Your task to perform on an android device: Go to Google maps Image 0: 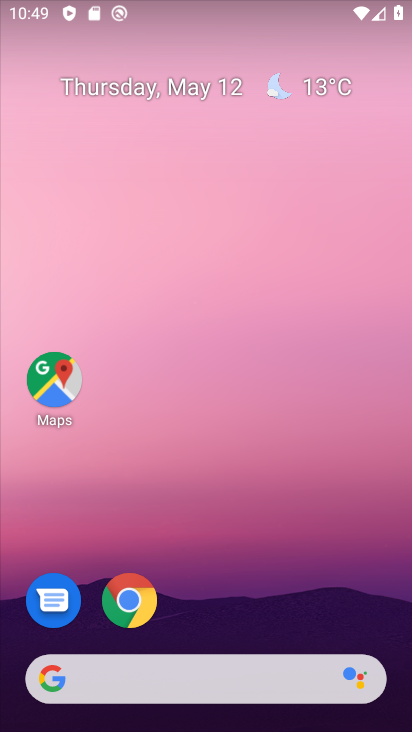
Step 0: click (53, 378)
Your task to perform on an android device: Go to Google maps Image 1: 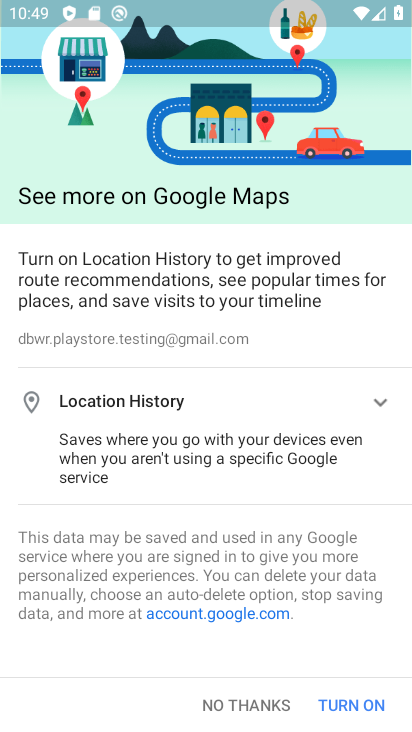
Step 1: click (239, 714)
Your task to perform on an android device: Go to Google maps Image 2: 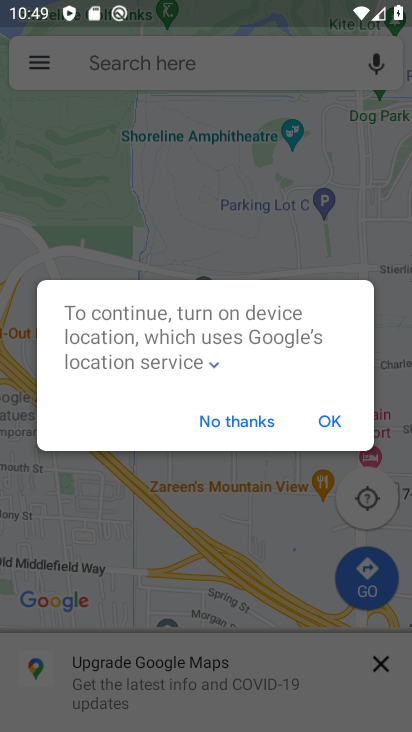
Step 2: click (335, 427)
Your task to perform on an android device: Go to Google maps Image 3: 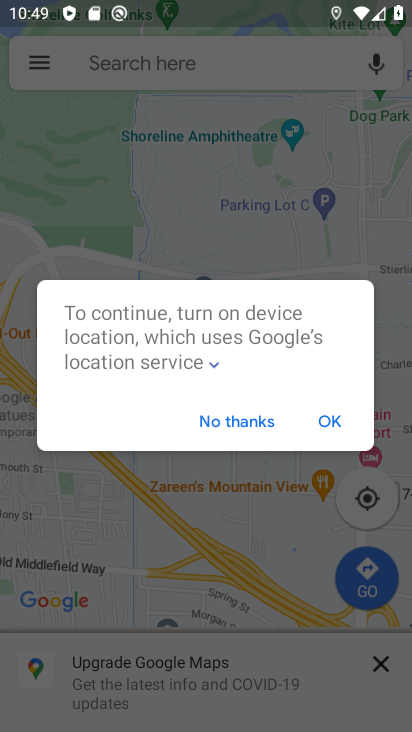
Step 3: click (337, 425)
Your task to perform on an android device: Go to Google maps Image 4: 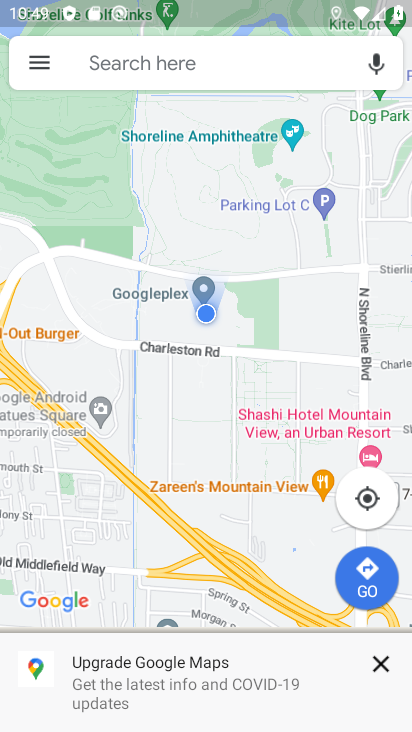
Step 4: task complete